Your task to perform on an android device: Do I have any events today? Image 0: 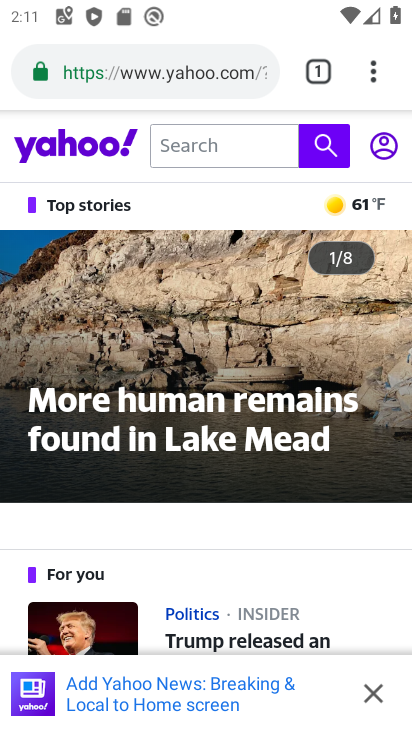
Step 0: press home button
Your task to perform on an android device: Do I have any events today? Image 1: 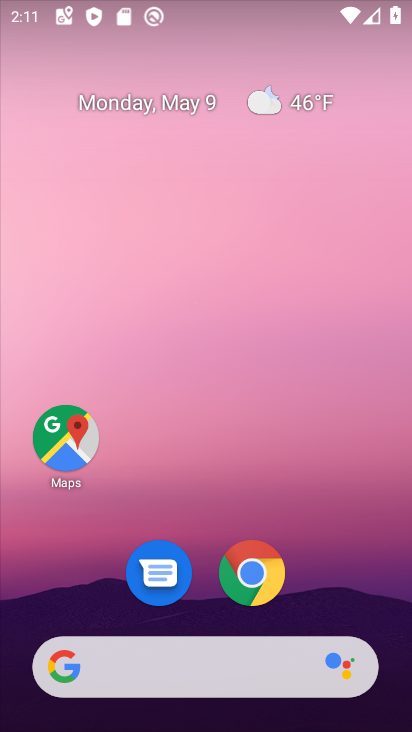
Step 1: drag from (173, 476) to (161, 51)
Your task to perform on an android device: Do I have any events today? Image 2: 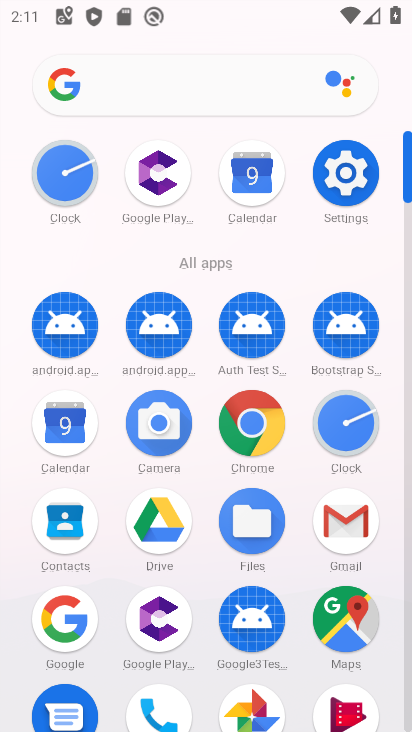
Step 2: click (64, 424)
Your task to perform on an android device: Do I have any events today? Image 3: 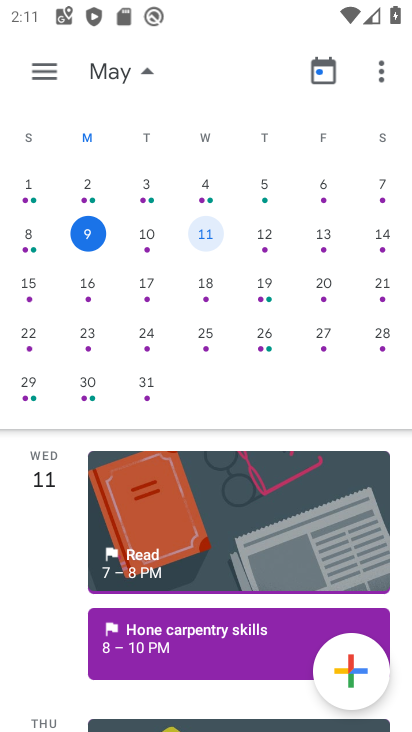
Step 3: click (92, 229)
Your task to perform on an android device: Do I have any events today? Image 4: 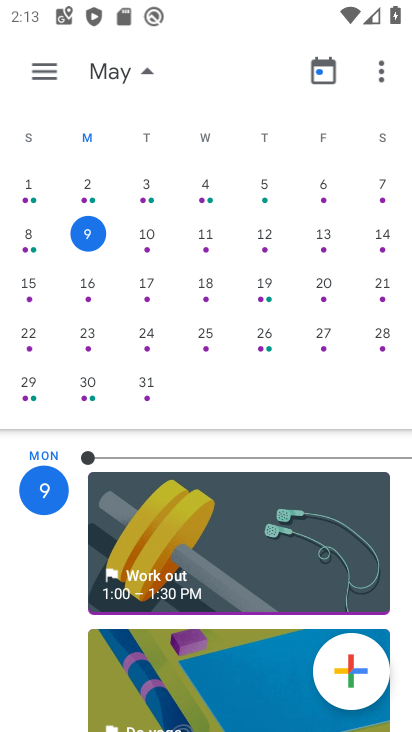
Step 4: task complete